Your task to perform on an android device: Open Chrome and go to settings Image 0: 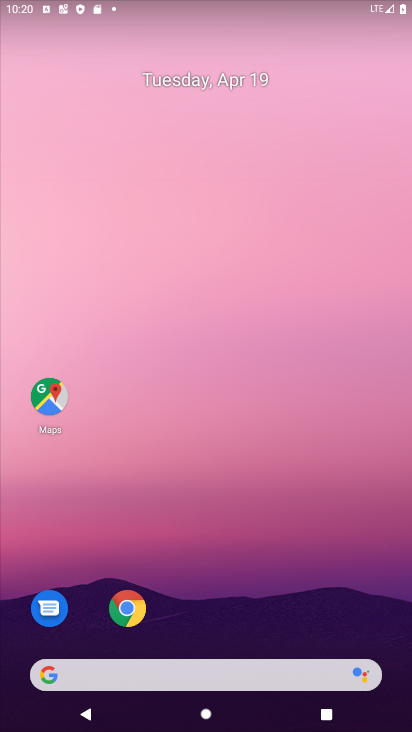
Step 0: click (123, 607)
Your task to perform on an android device: Open Chrome and go to settings Image 1: 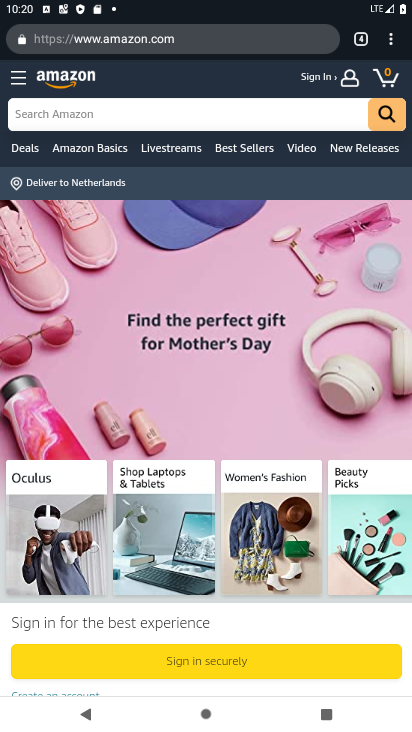
Step 1: click (389, 43)
Your task to perform on an android device: Open Chrome and go to settings Image 2: 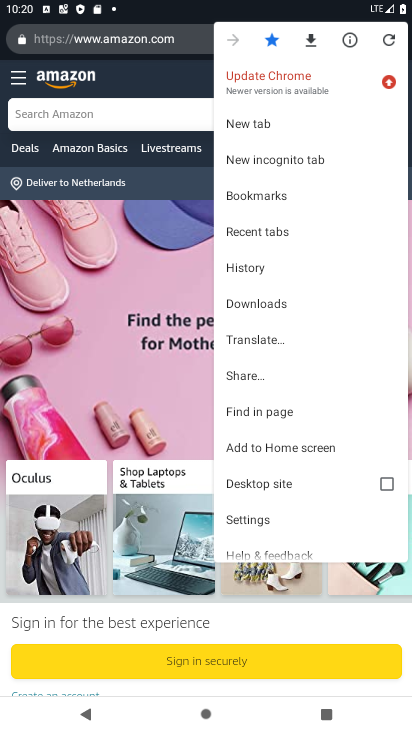
Step 2: drag from (315, 490) to (339, 185)
Your task to perform on an android device: Open Chrome and go to settings Image 3: 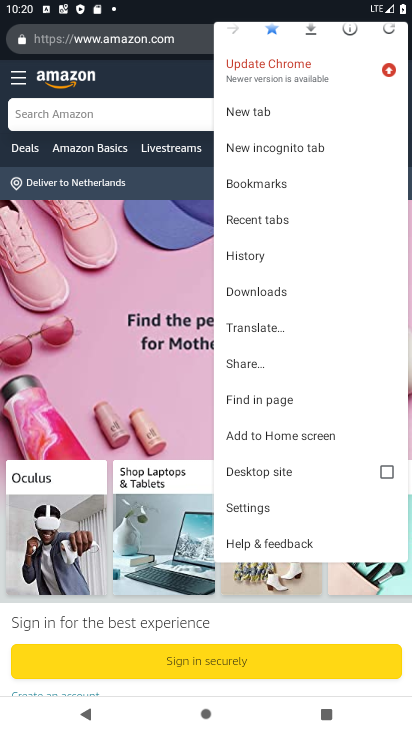
Step 3: click (238, 511)
Your task to perform on an android device: Open Chrome and go to settings Image 4: 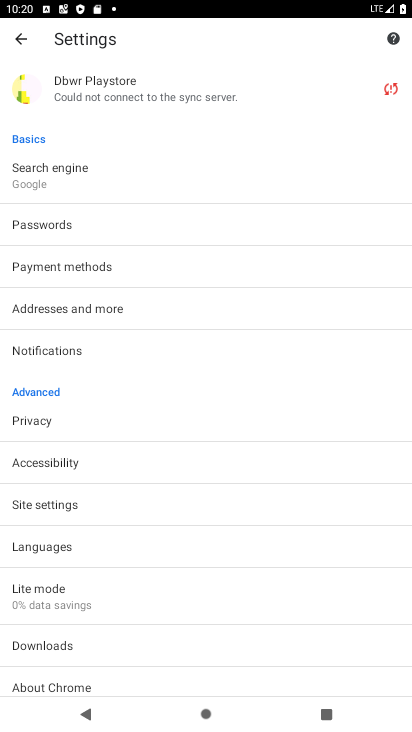
Step 4: task complete